Your task to perform on an android device: Go to Google maps Image 0: 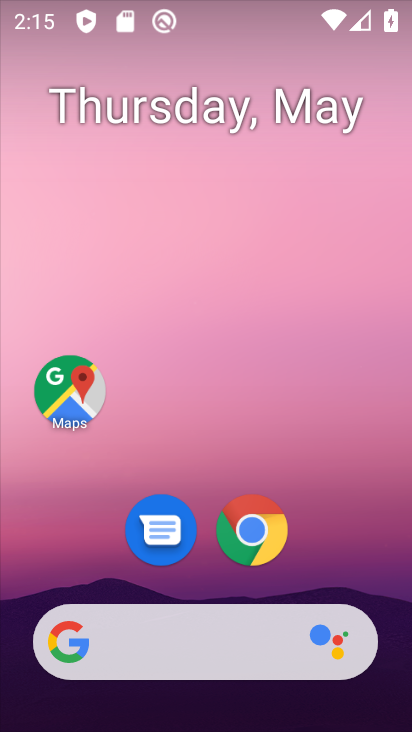
Step 0: press home button
Your task to perform on an android device: Go to Google maps Image 1: 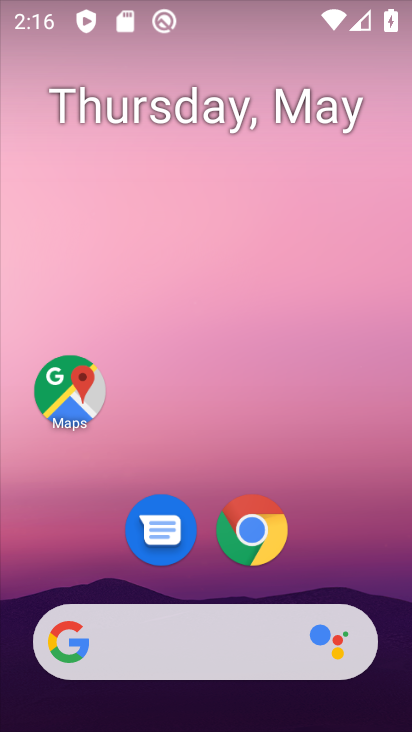
Step 1: drag from (178, 657) to (272, 231)
Your task to perform on an android device: Go to Google maps Image 2: 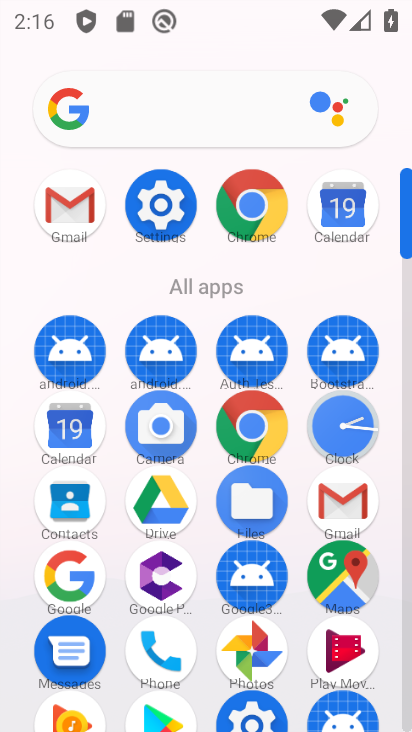
Step 2: click (339, 579)
Your task to perform on an android device: Go to Google maps Image 3: 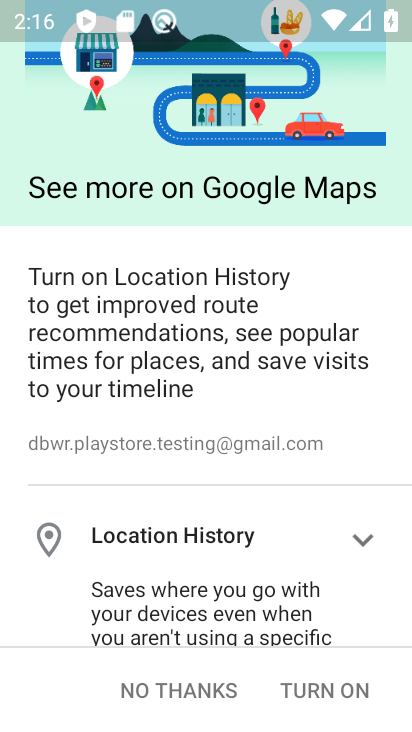
Step 3: click (172, 692)
Your task to perform on an android device: Go to Google maps Image 4: 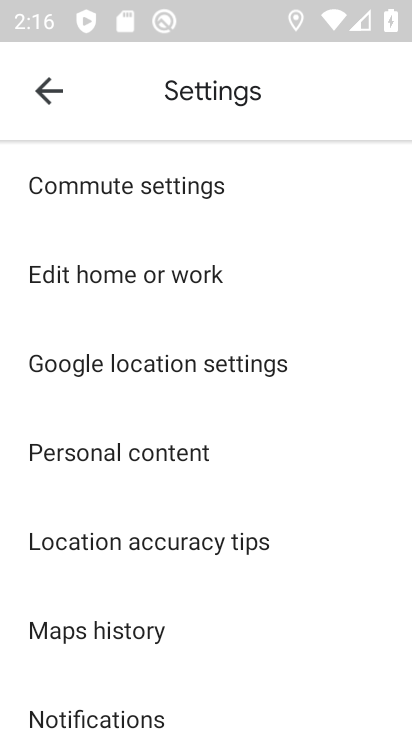
Step 4: click (41, 81)
Your task to perform on an android device: Go to Google maps Image 5: 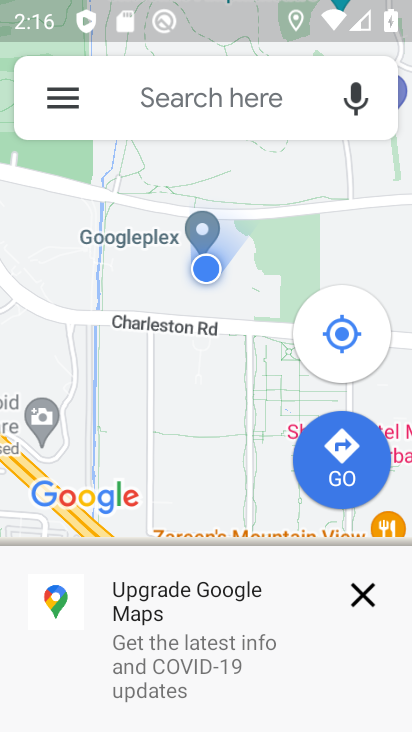
Step 5: task complete